Your task to perform on an android device: Go to location settings Image 0: 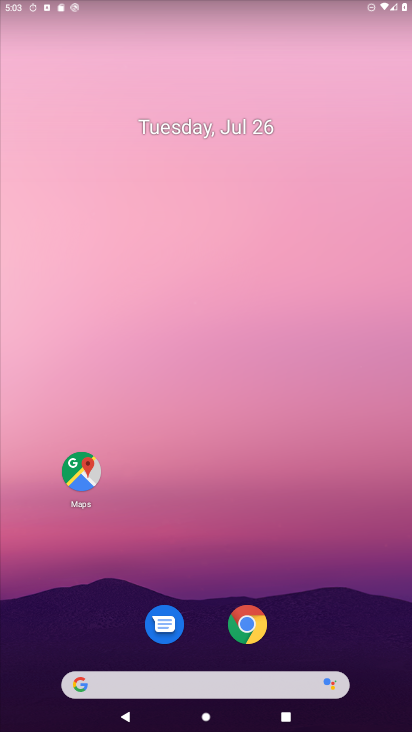
Step 0: drag from (288, 83) to (280, 30)
Your task to perform on an android device: Go to location settings Image 1: 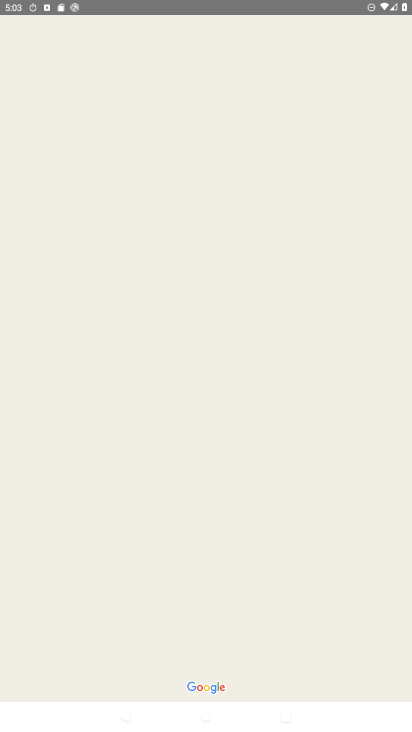
Step 1: press home button
Your task to perform on an android device: Go to location settings Image 2: 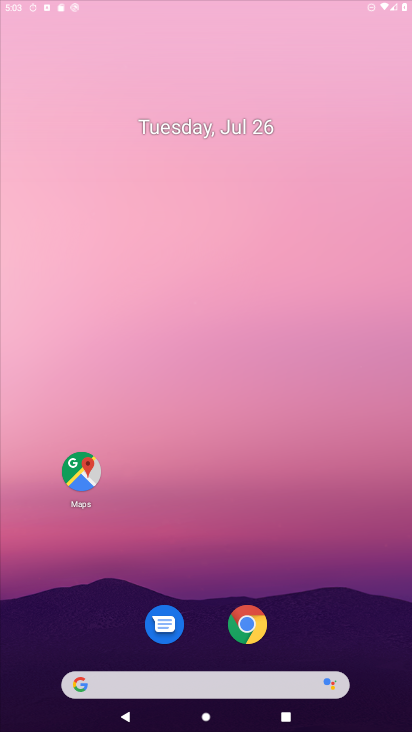
Step 2: drag from (238, 693) to (190, 6)
Your task to perform on an android device: Go to location settings Image 3: 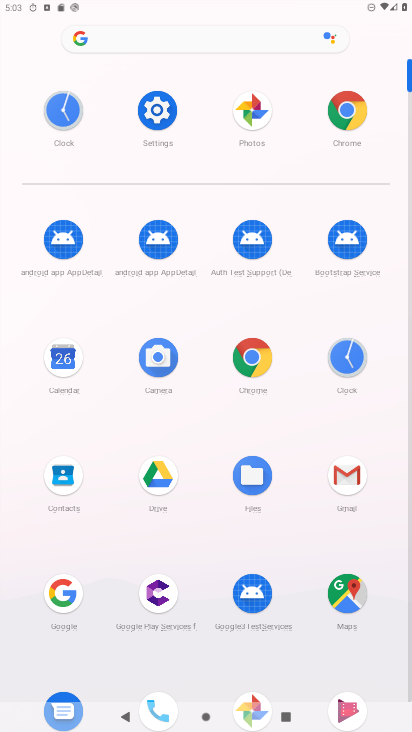
Step 3: click (165, 107)
Your task to perform on an android device: Go to location settings Image 4: 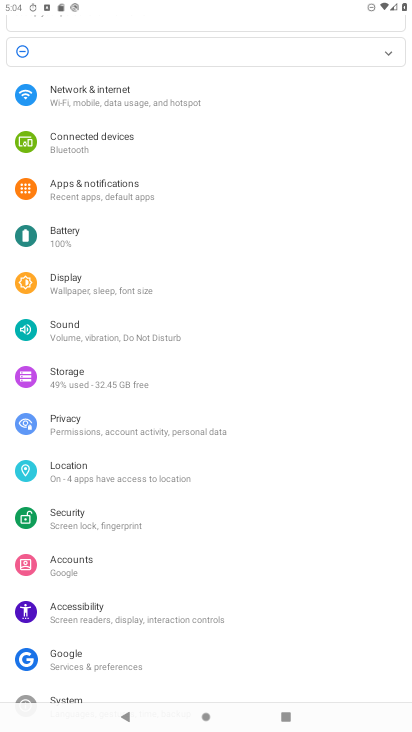
Step 4: click (116, 484)
Your task to perform on an android device: Go to location settings Image 5: 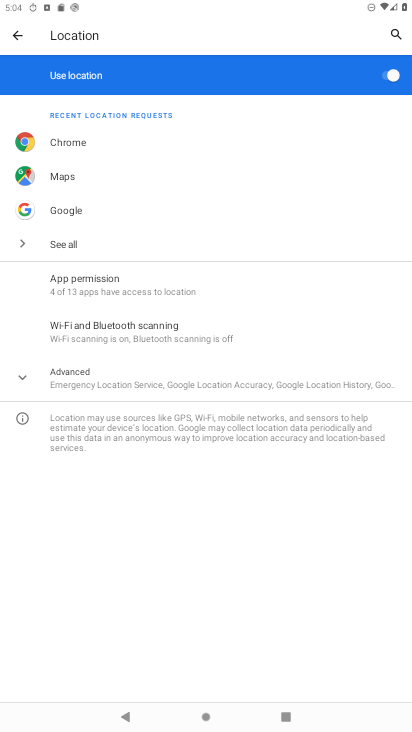
Step 5: task complete